Your task to perform on an android device: find photos in the google photos app Image 0: 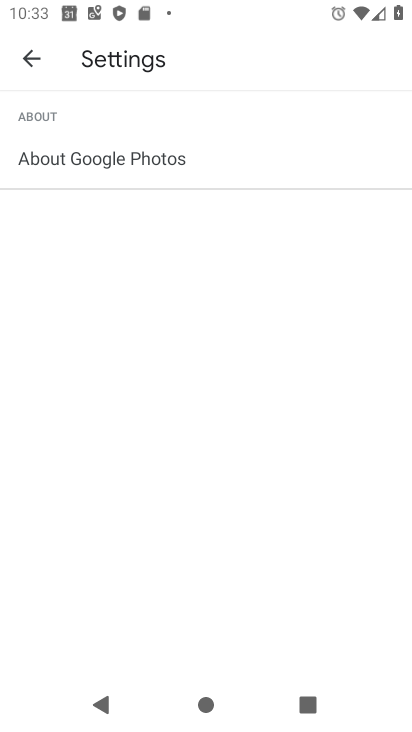
Step 0: press home button
Your task to perform on an android device: find photos in the google photos app Image 1: 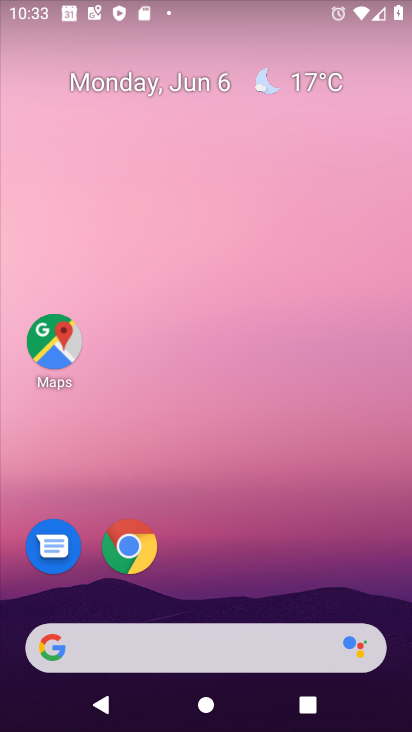
Step 1: drag from (218, 597) to (340, 0)
Your task to perform on an android device: find photos in the google photos app Image 2: 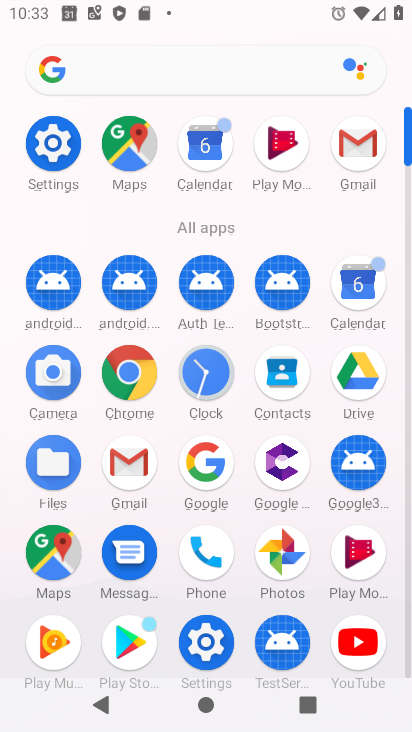
Step 2: click (287, 572)
Your task to perform on an android device: find photos in the google photos app Image 3: 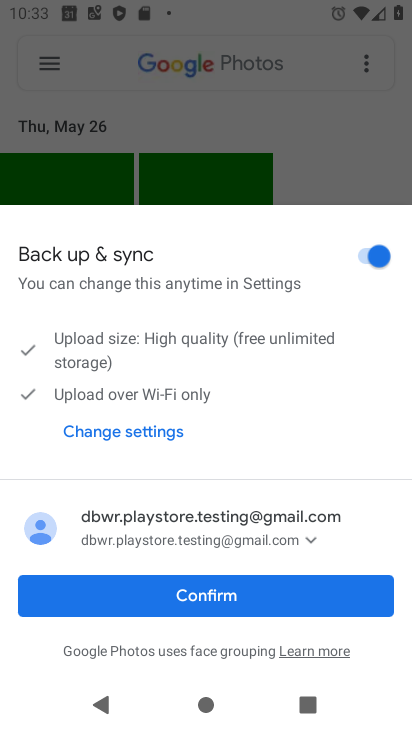
Step 3: click (223, 590)
Your task to perform on an android device: find photos in the google photos app Image 4: 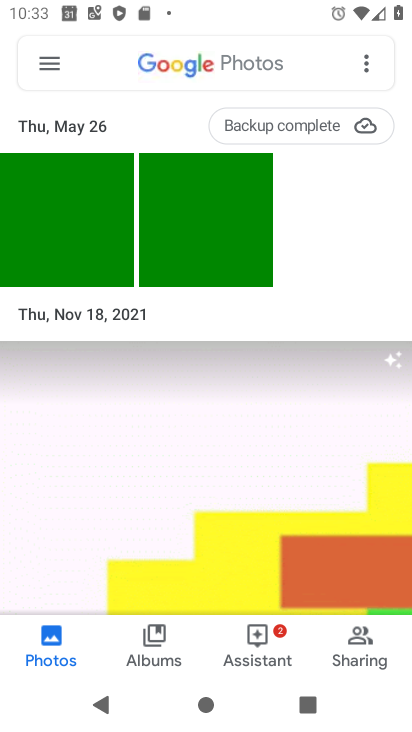
Step 4: task complete